Your task to perform on an android device: Go to Wikipedia Image 0: 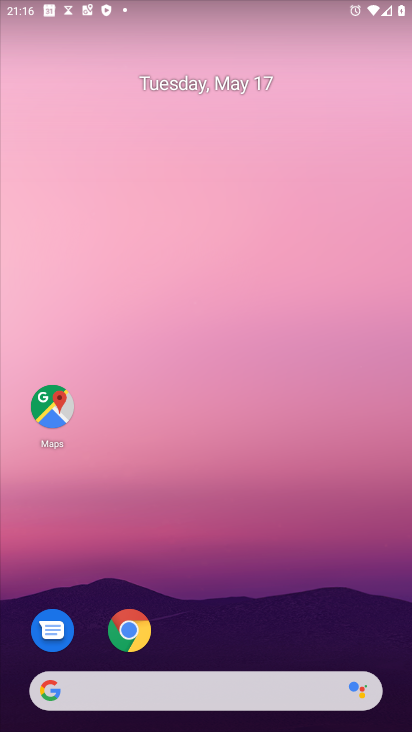
Step 0: click (127, 638)
Your task to perform on an android device: Go to Wikipedia Image 1: 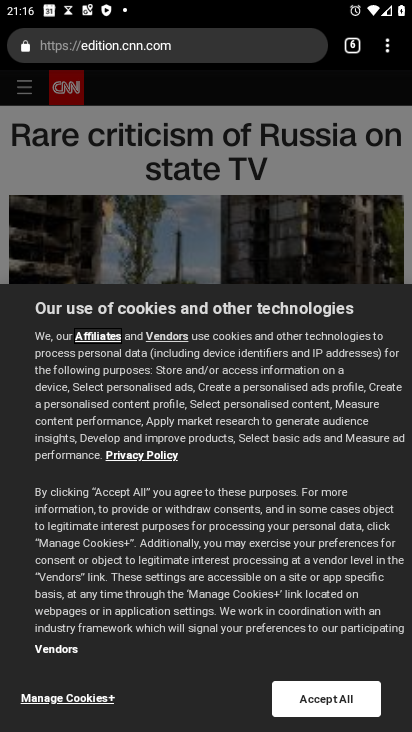
Step 1: click (353, 46)
Your task to perform on an android device: Go to Wikipedia Image 2: 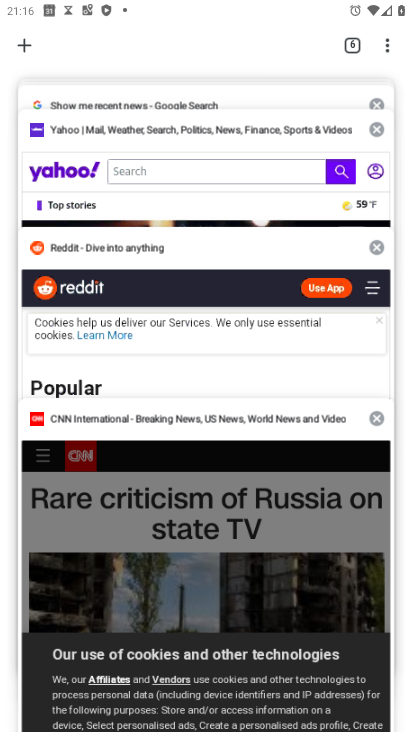
Step 2: drag from (137, 124) to (142, 287)
Your task to perform on an android device: Go to Wikipedia Image 3: 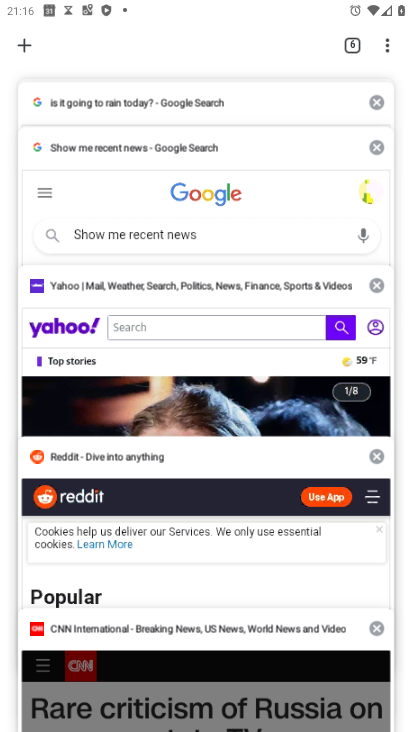
Step 3: drag from (121, 136) to (141, 507)
Your task to perform on an android device: Go to Wikipedia Image 4: 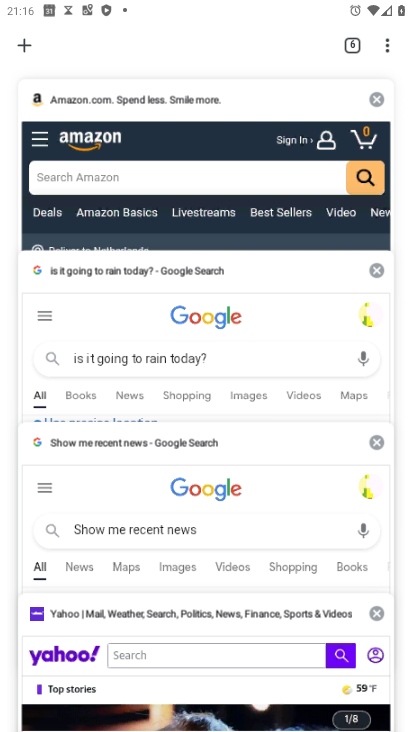
Step 4: drag from (115, 116) to (105, 45)
Your task to perform on an android device: Go to Wikipedia Image 5: 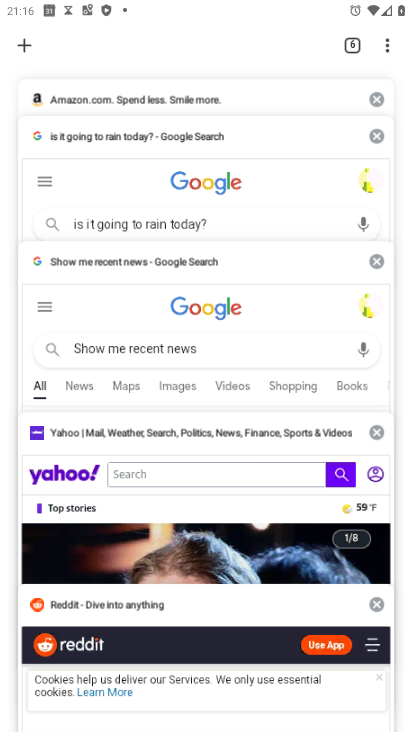
Step 5: click (26, 47)
Your task to perform on an android device: Go to Wikipedia Image 6: 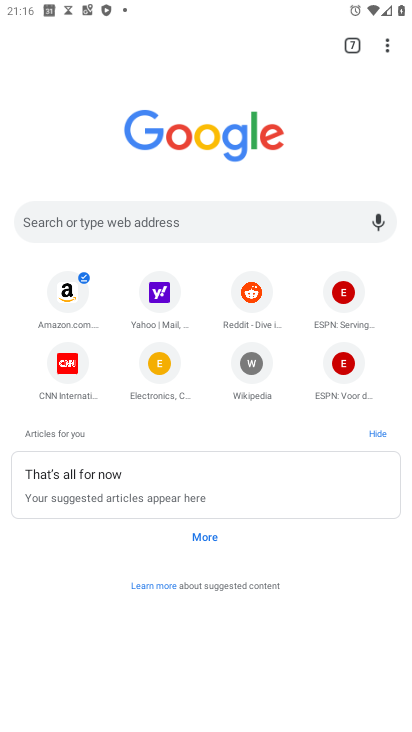
Step 6: click (251, 371)
Your task to perform on an android device: Go to Wikipedia Image 7: 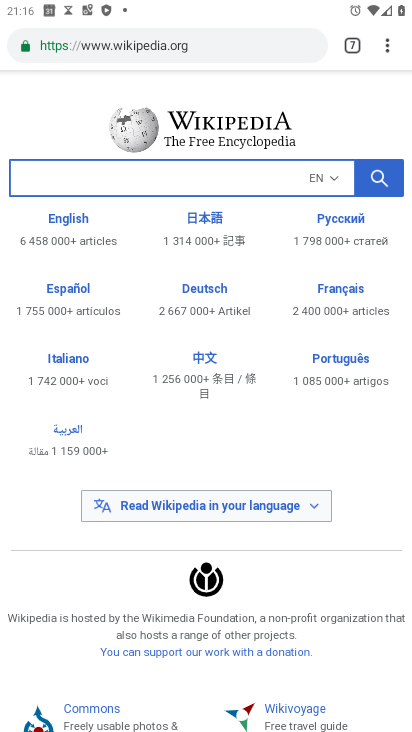
Step 7: task complete